Your task to perform on an android device: turn pop-ups on in chrome Image 0: 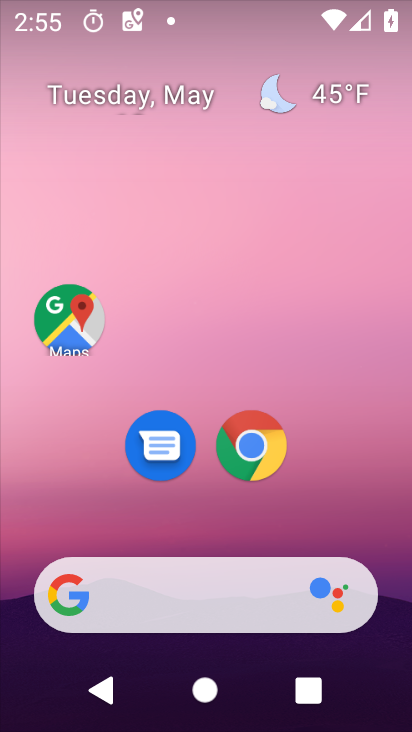
Step 0: click (252, 450)
Your task to perform on an android device: turn pop-ups on in chrome Image 1: 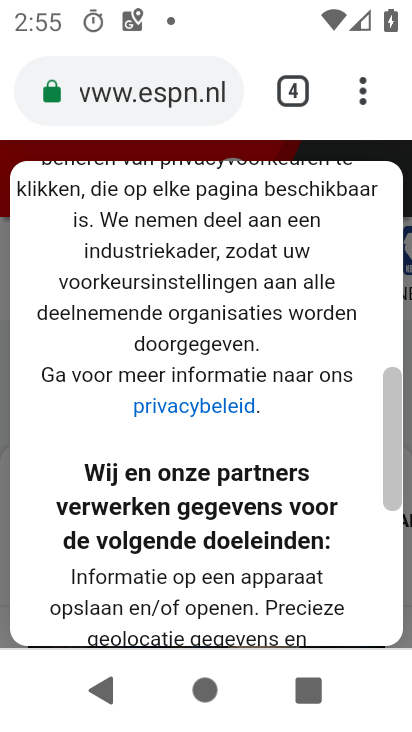
Step 1: drag from (361, 83) to (105, 466)
Your task to perform on an android device: turn pop-ups on in chrome Image 2: 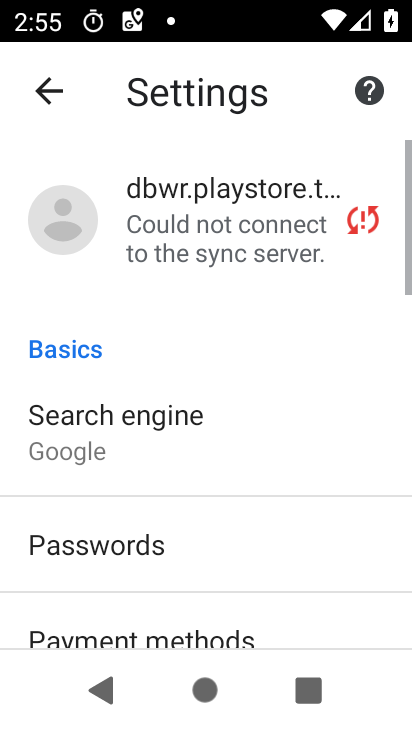
Step 2: drag from (165, 600) to (327, 130)
Your task to perform on an android device: turn pop-ups on in chrome Image 3: 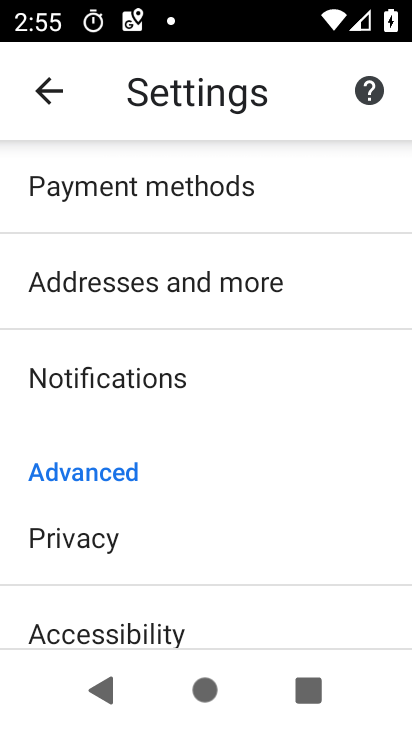
Step 3: drag from (205, 593) to (268, 242)
Your task to perform on an android device: turn pop-ups on in chrome Image 4: 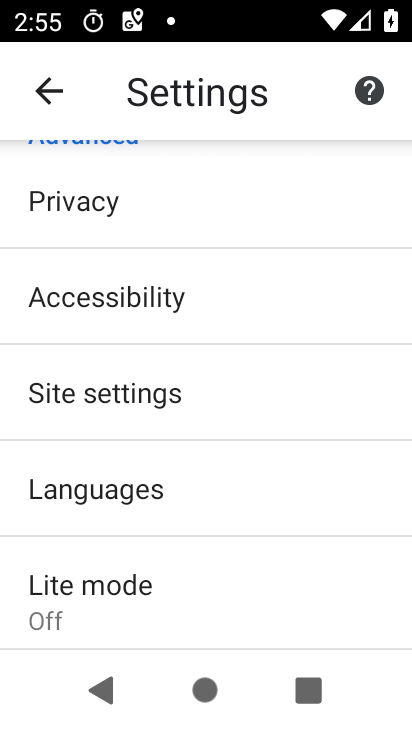
Step 4: drag from (214, 549) to (247, 446)
Your task to perform on an android device: turn pop-ups on in chrome Image 5: 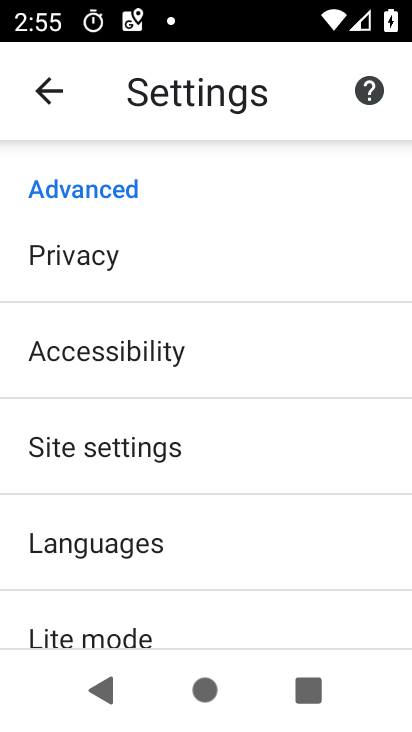
Step 5: click (187, 448)
Your task to perform on an android device: turn pop-ups on in chrome Image 6: 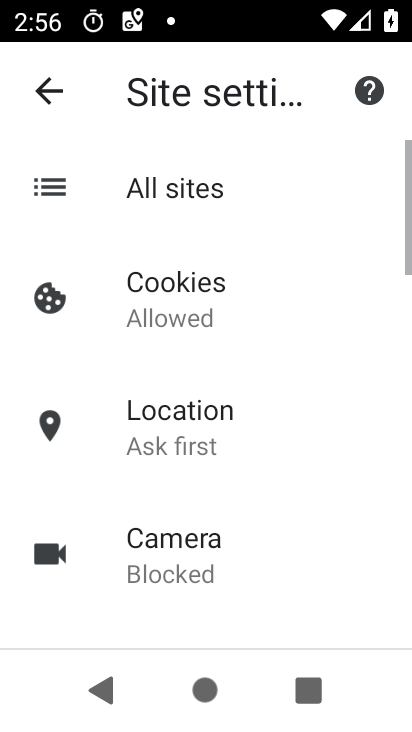
Step 6: drag from (203, 587) to (369, 85)
Your task to perform on an android device: turn pop-ups on in chrome Image 7: 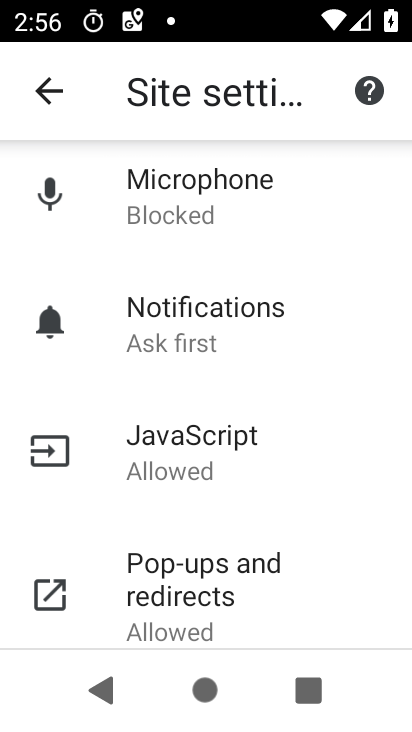
Step 7: click (179, 564)
Your task to perform on an android device: turn pop-ups on in chrome Image 8: 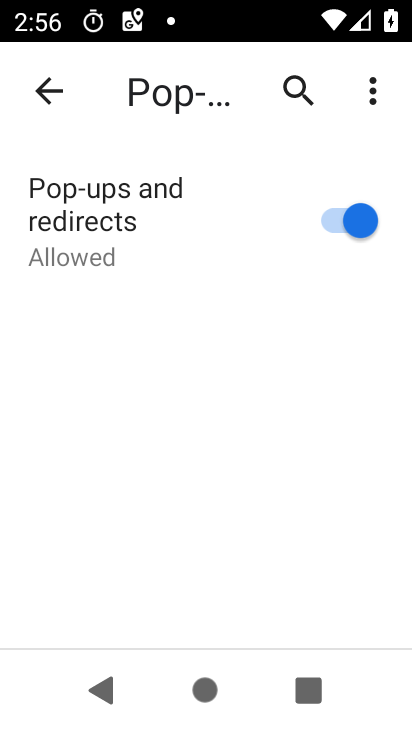
Step 8: task complete